Your task to perform on an android device: check google app version Image 0: 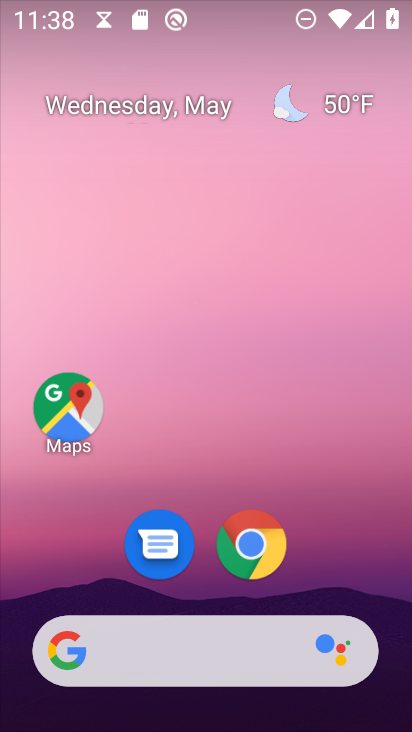
Step 0: drag from (195, 579) to (230, 71)
Your task to perform on an android device: check google app version Image 1: 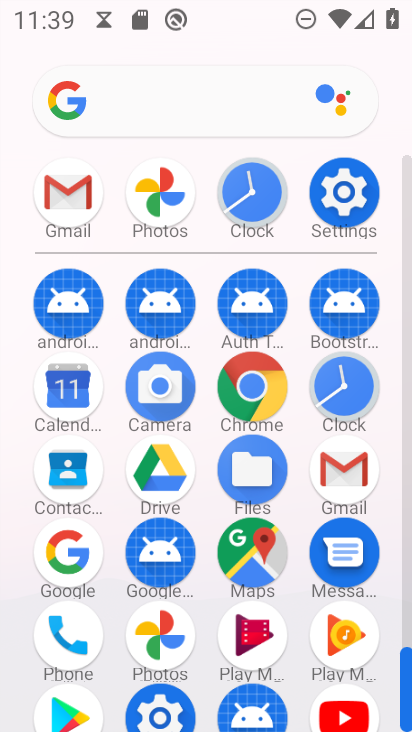
Step 1: click (62, 534)
Your task to perform on an android device: check google app version Image 2: 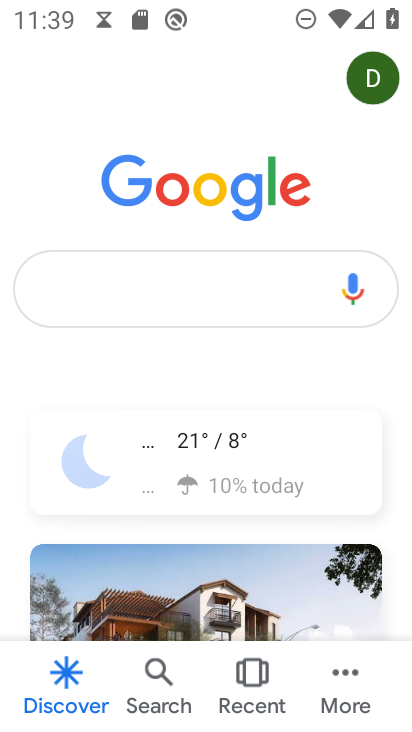
Step 2: click (385, 674)
Your task to perform on an android device: check google app version Image 3: 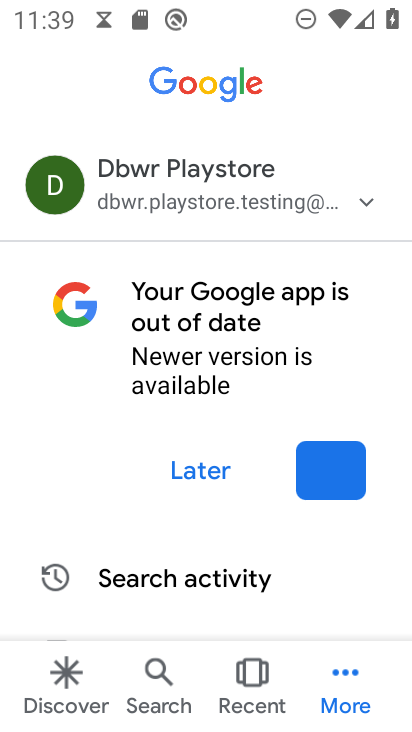
Step 3: drag from (150, 512) to (226, 92)
Your task to perform on an android device: check google app version Image 4: 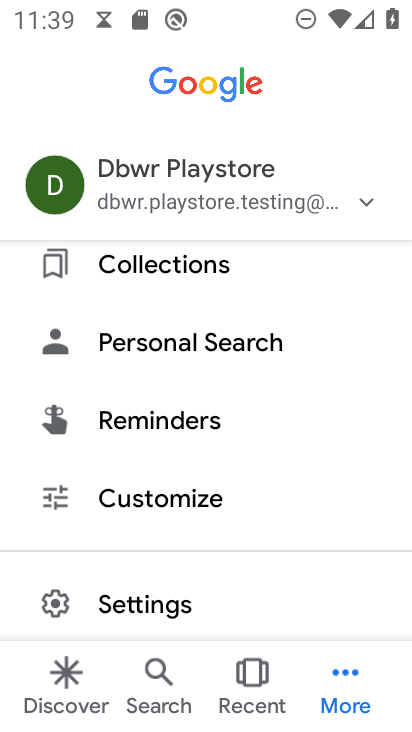
Step 4: click (89, 504)
Your task to perform on an android device: check google app version Image 5: 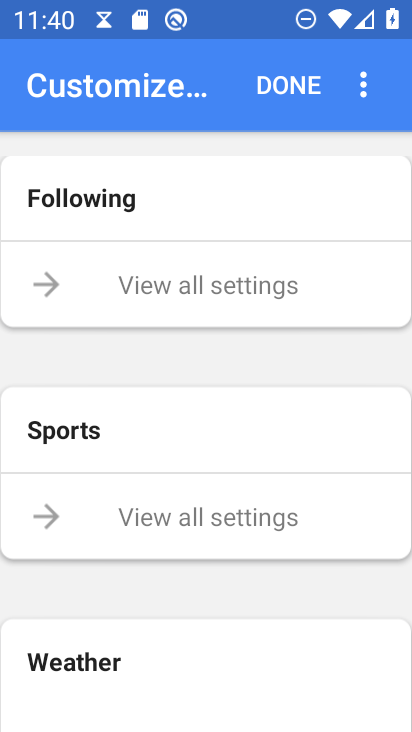
Step 5: press back button
Your task to perform on an android device: check google app version Image 6: 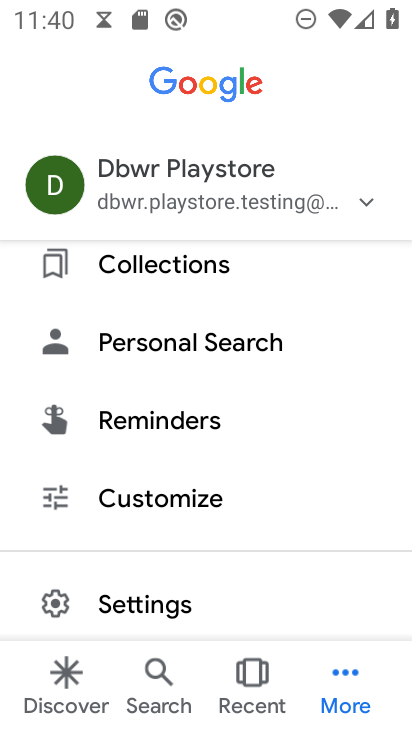
Step 6: click (124, 580)
Your task to perform on an android device: check google app version Image 7: 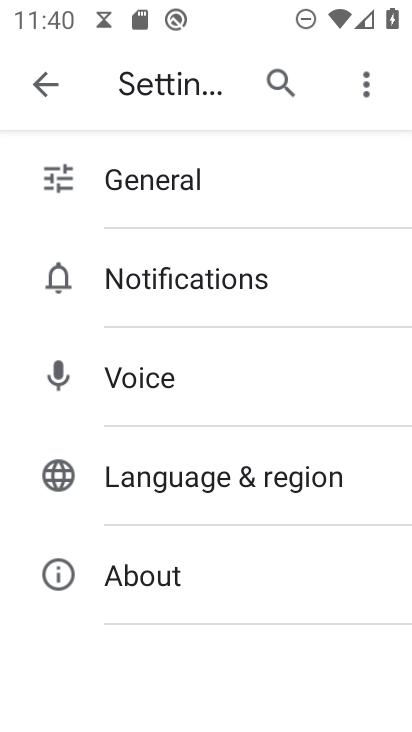
Step 7: click (158, 574)
Your task to perform on an android device: check google app version Image 8: 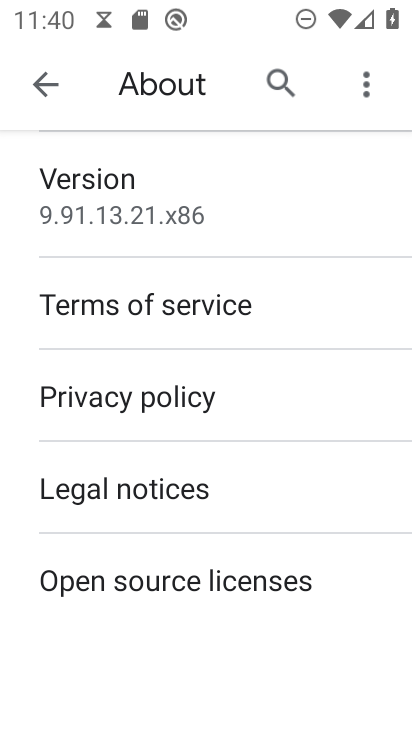
Step 8: click (150, 182)
Your task to perform on an android device: check google app version Image 9: 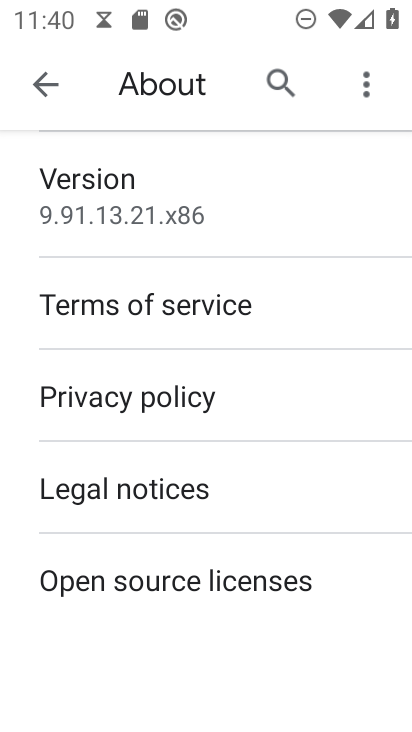
Step 9: task complete